Your task to perform on an android device: open wifi settings Image 0: 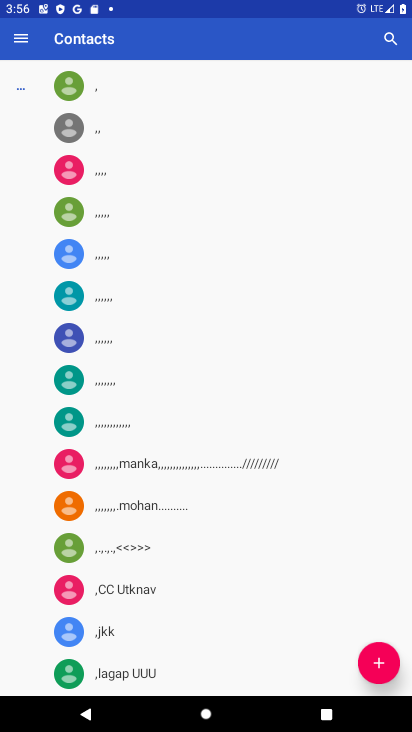
Step 0: press home button
Your task to perform on an android device: open wifi settings Image 1: 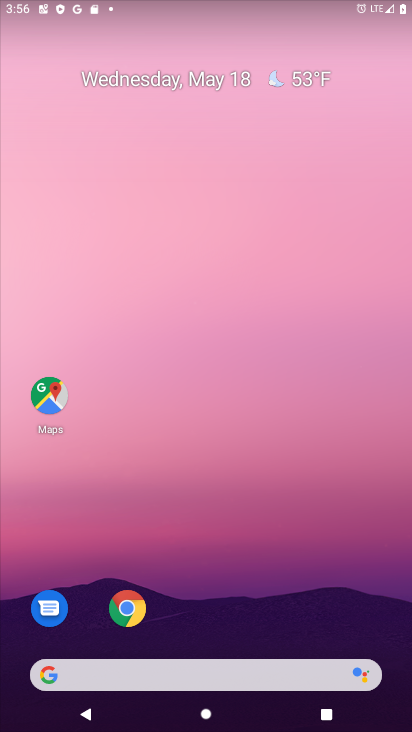
Step 1: drag from (292, 623) to (268, 8)
Your task to perform on an android device: open wifi settings Image 2: 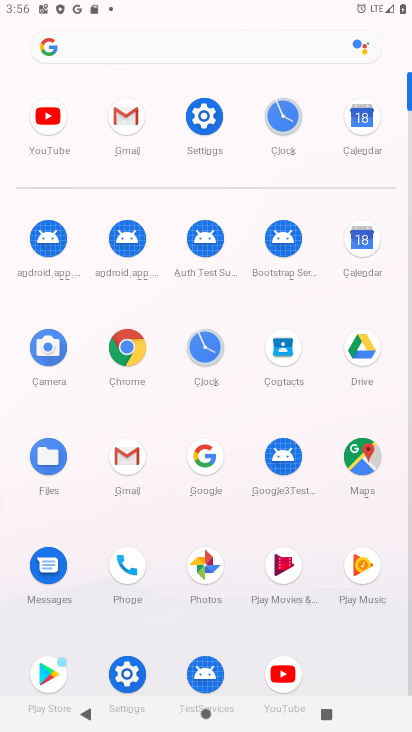
Step 2: click (196, 134)
Your task to perform on an android device: open wifi settings Image 3: 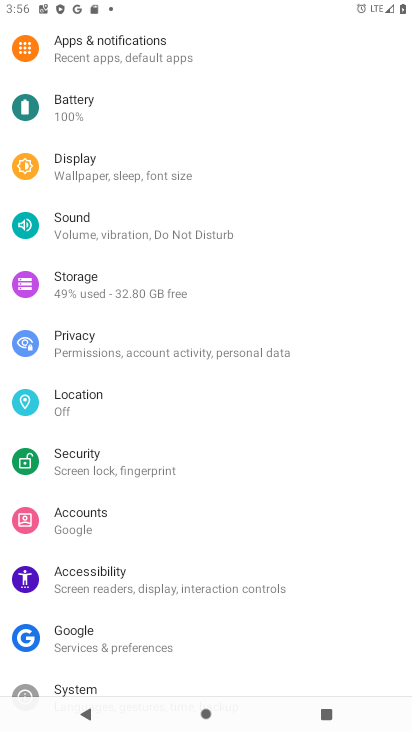
Step 3: drag from (173, 116) to (124, 362)
Your task to perform on an android device: open wifi settings Image 4: 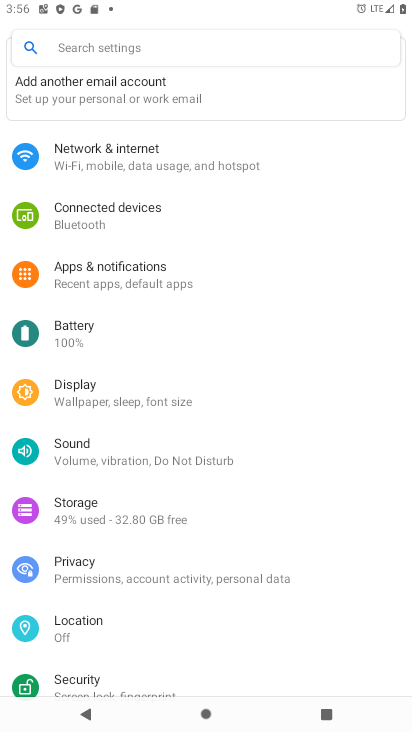
Step 4: click (103, 156)
Your task to perform on an android device: open wifi settings Image 5: 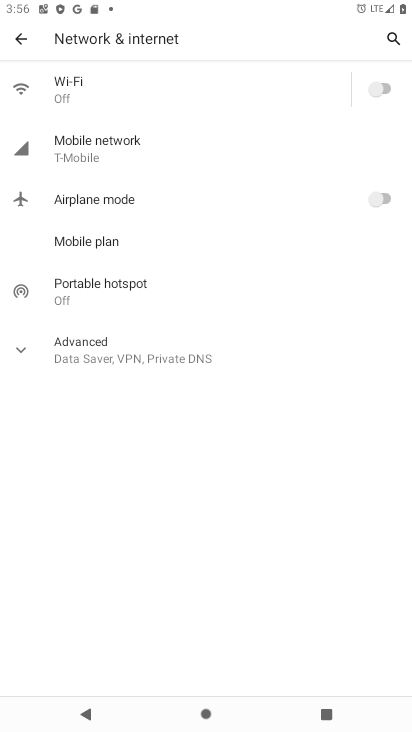
Step 5: click (56, 100)
Your task to perform on an android device: open wifi settings Image 6: 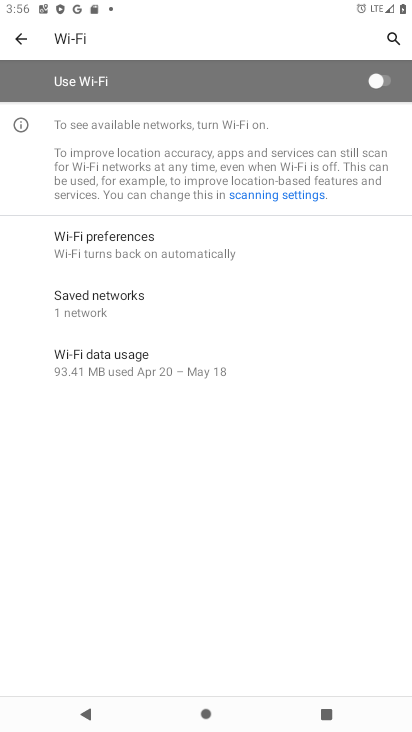
Step 6: task complete